Your task to perform on an android device: turn on data saver in the chrome app Image 0: 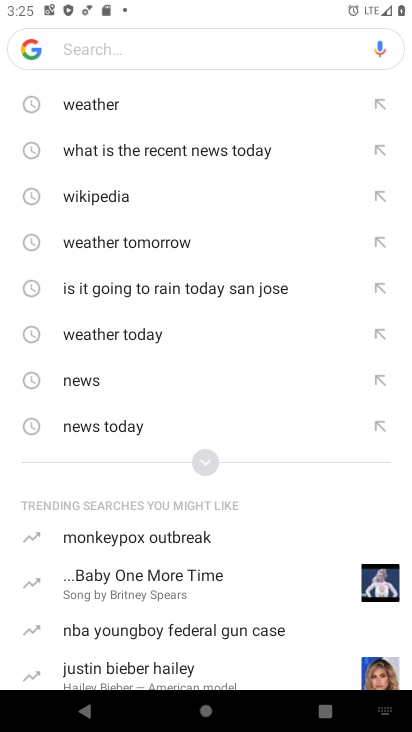
Step 0: press back button
Your task to perform on an android device: turn on data saver in the chrome app Image 1: 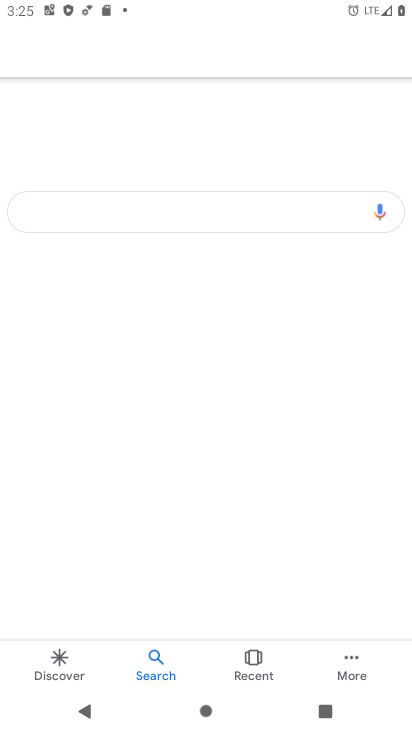
Step 1: press back button
Your task to perform on an android device: turn on data saver in the chrome app Image 2: 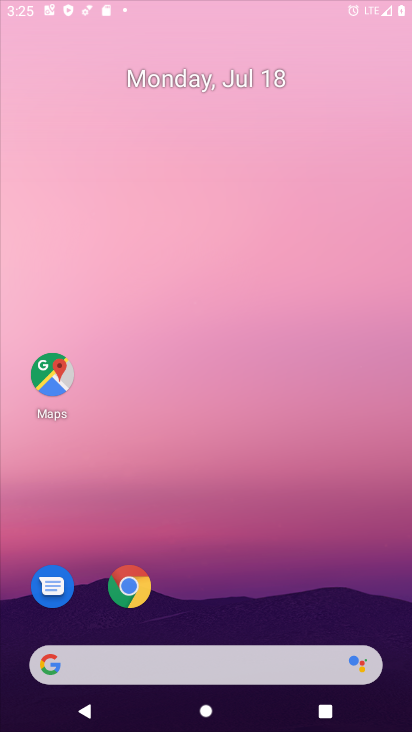
Step 2: press back button
Your task to perform on an android device: turn on data saver in the chrome app Image 3: 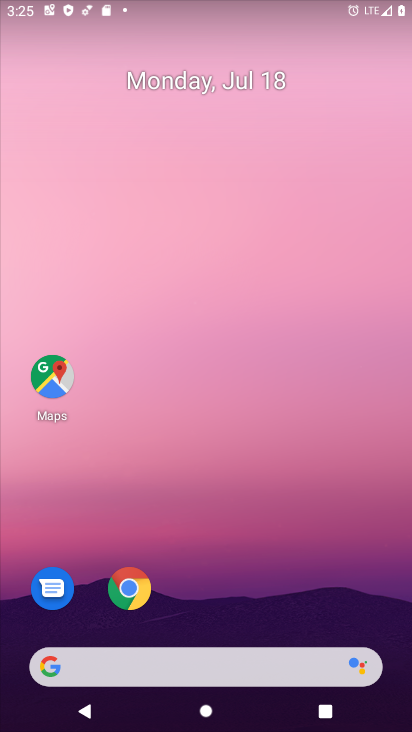
Step 3: click (136, 578)
Your task to perform on an android device: turn on data saver in the chrome app Image 4: 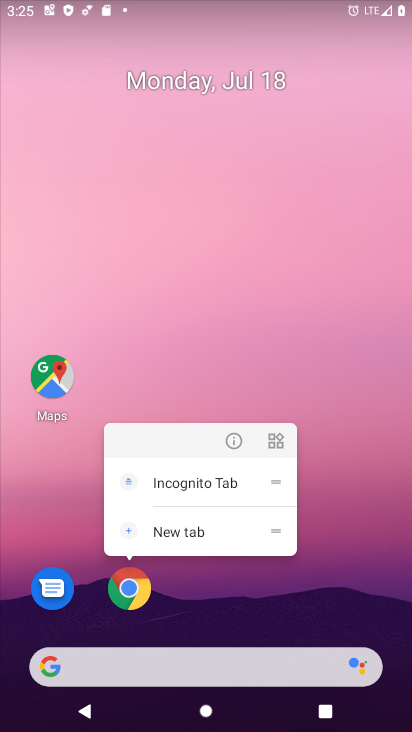
Step 4: click (130, 585)
Your task to perform on an android device: turn on data saver in the chrome app Image 5: 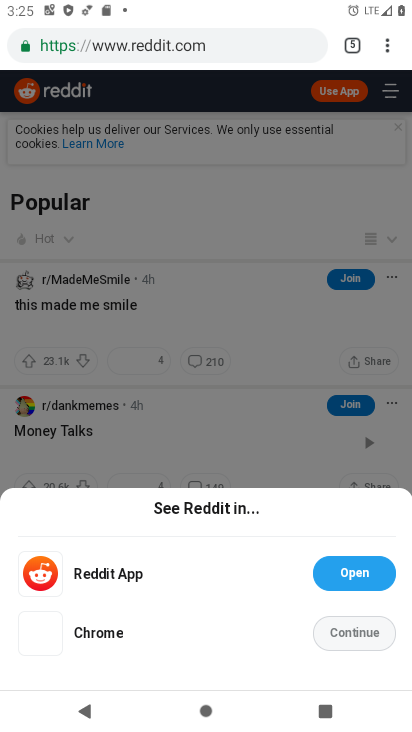
Step 5: drag from (390, 38) to (238, 555)
Your task to perform on an android device: turn on data saver in the chrome app Image 6: 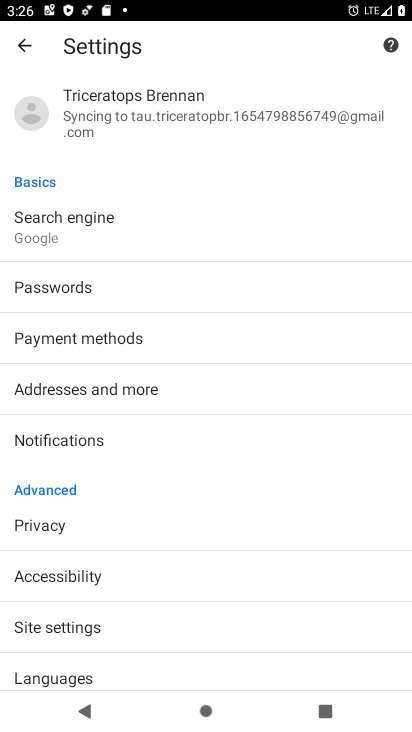
Step 6: drag from (127, 641) to (221, 220)
Your task to perform on an android device: turn on data saver in the chrome app Image 7: 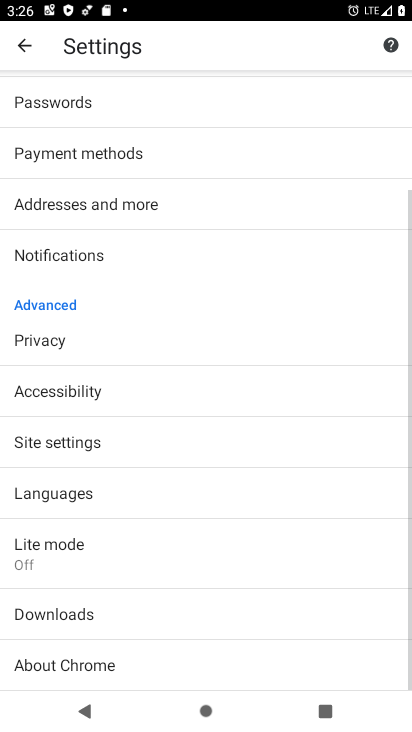
Step 7: click (35, 547)
Your task to perform on an android device: turn on data saver in the chrome app Image 8: 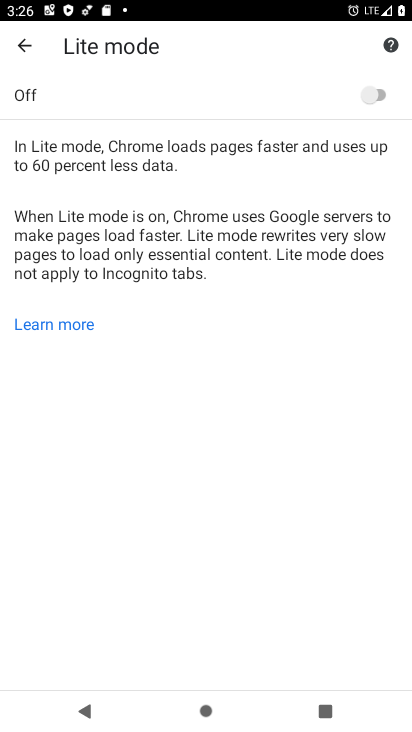
Step 8: click (377, 86)
Your task to perform on an android device: turn on data saver in the chrome app Image 9: 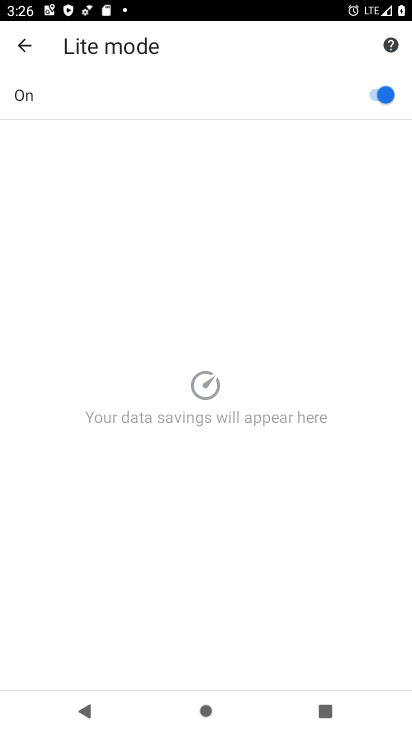
Step 9: task complete